Your task to perform on an android device: turn on wifi Image 0: 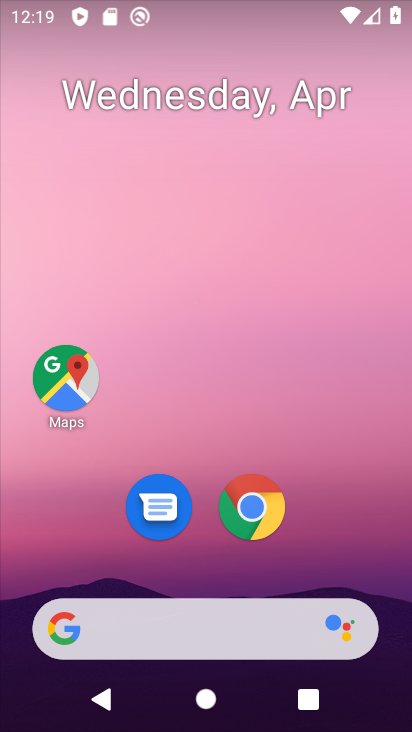
Step 0: drag from (198, 562) to (198, 166)
Your task to perform on an android device: turn on wifi Image 1: 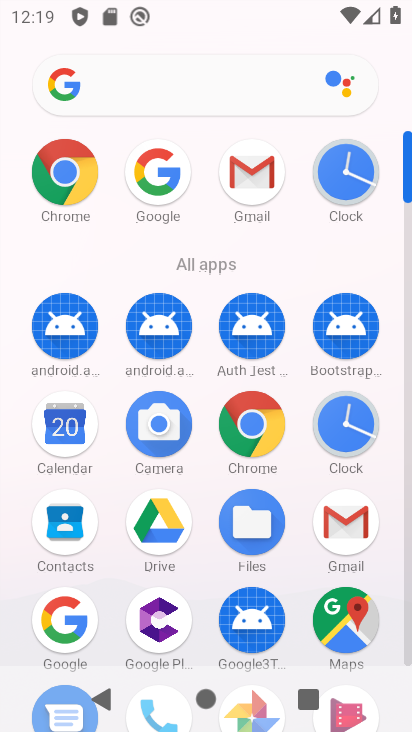
Step 1: drag from (195, 547) to (232, 132)
Your task to perform on an android device: turn on wifi Image 2: 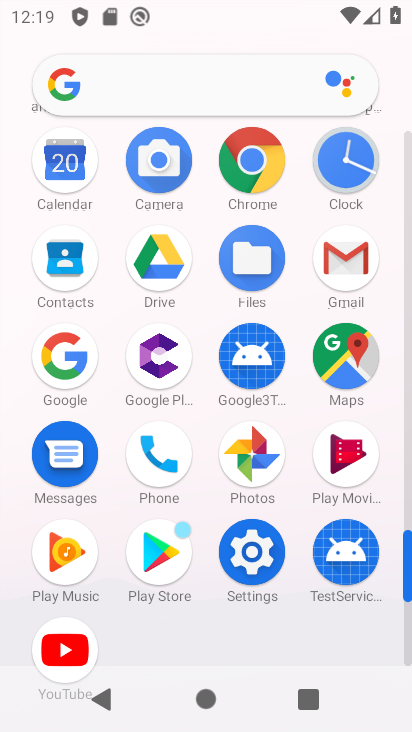
Step 2: click (241, 530)
Your task to perform on an android device: turn on wifi Image 3: 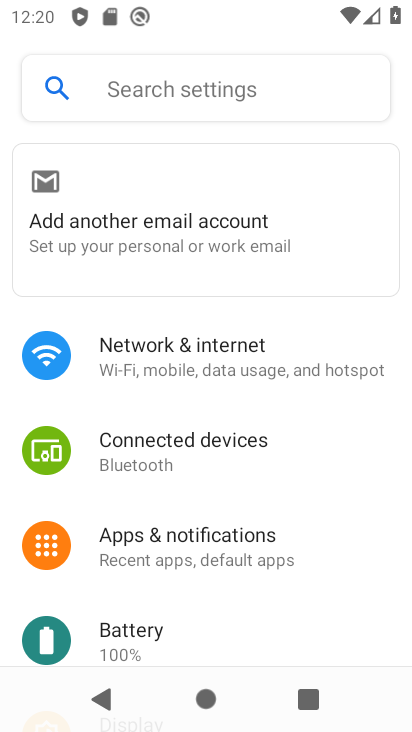
Step 3: click (184, 335)
Your task to perform on an android device: turn on wifi Image 4: 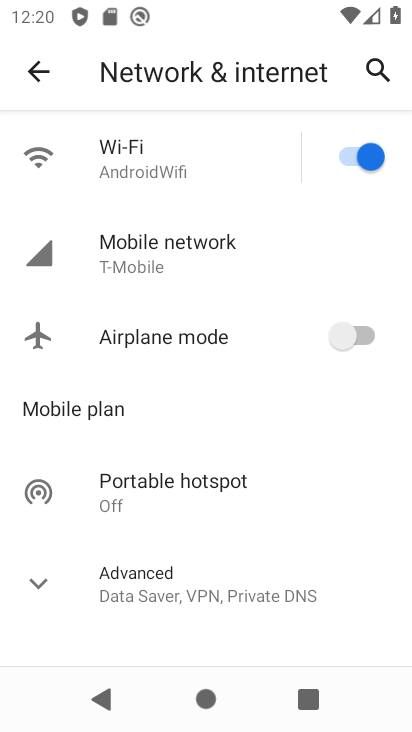
Step 4: task complete